Your task to perform on an android device: open wifi settings Image 0: 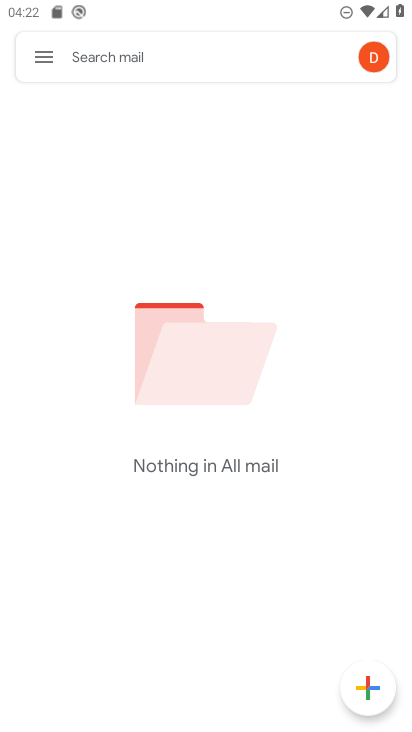
Step 0: press back button
Your task to perform on an android device: open wifi settings Image 1: 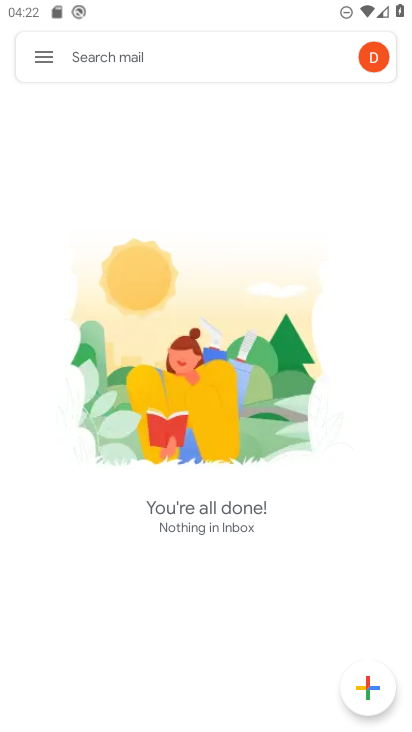
Step 1: press back button
Your task to perform on an android device: open wifi settings Image 2: 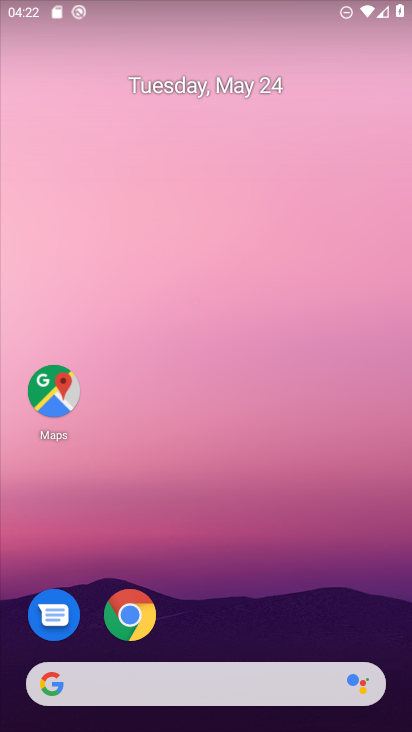
Step 2: drag from (279, 546) to (246, 1)
Your task to perform on an android device: open wifi settings Image 3: 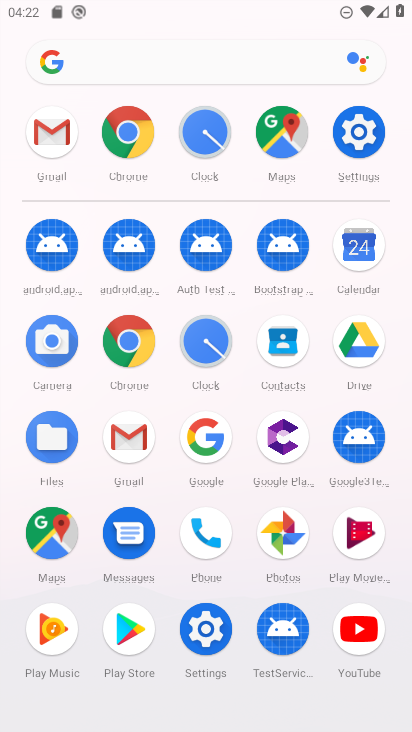
Step 3: click (204, 628)
Your task to perform on an android device: open wifi settings Image 4: 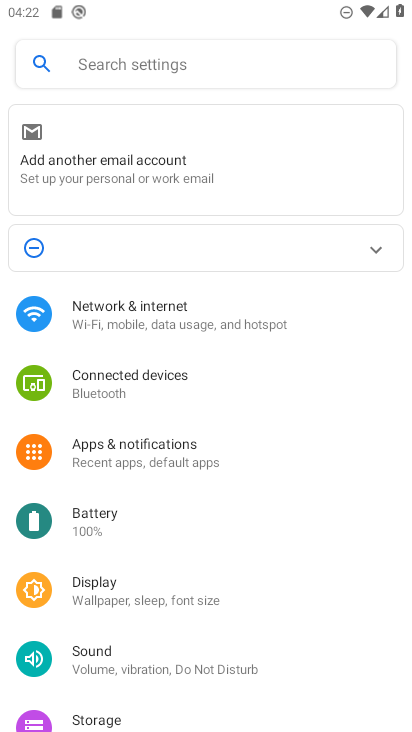
Step 4: click (164, 333)
Your task to perform on an android device: open wifi settings Image 5: 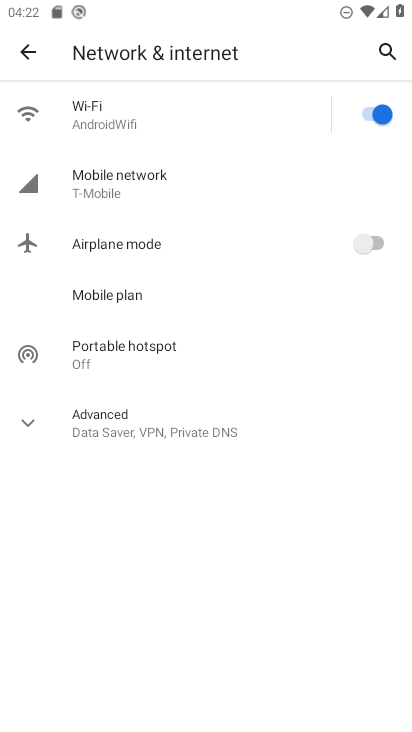
Step 5: click (44, 418)
Your task to perform on an android device: open wifi settings Image 6: 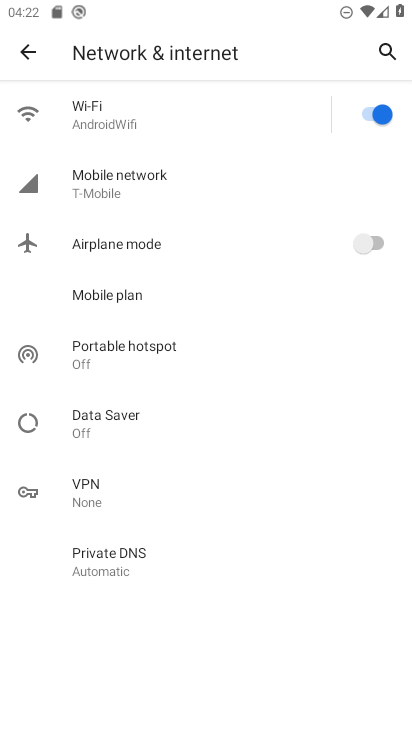
Step 6: click (145, 109)
Your task to perform on an android device: open wifi settings Image 7: 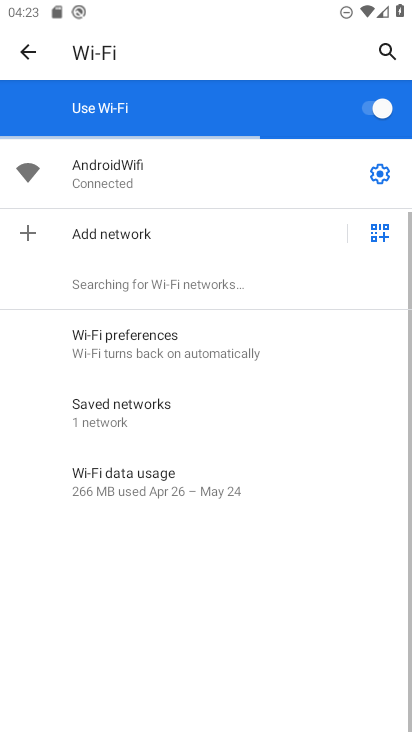
Step 7: task complete